Your task to perform on an android device: install app "Google Docs" Image 0: 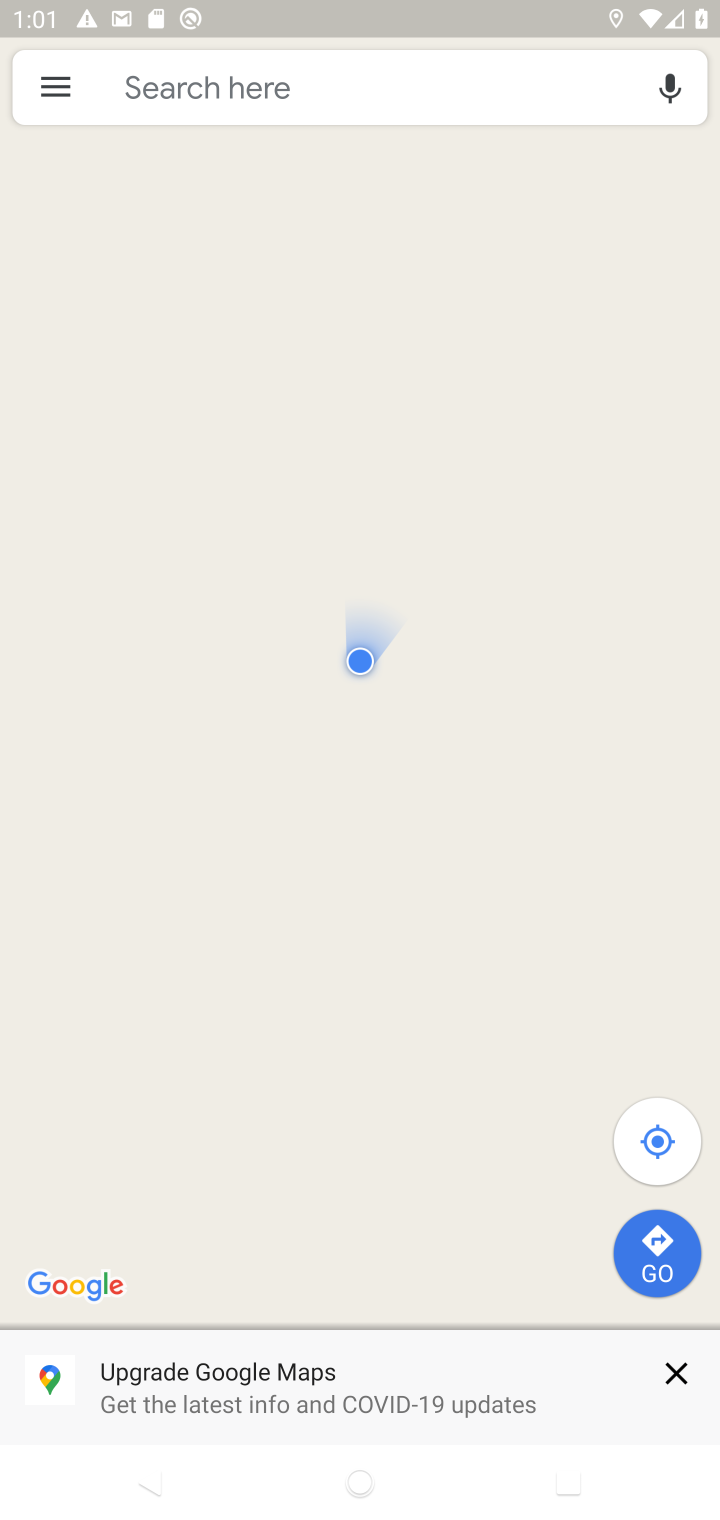
Step 0: press home button
Your task to perform on an android device: install app "Google Docs" Image 1: 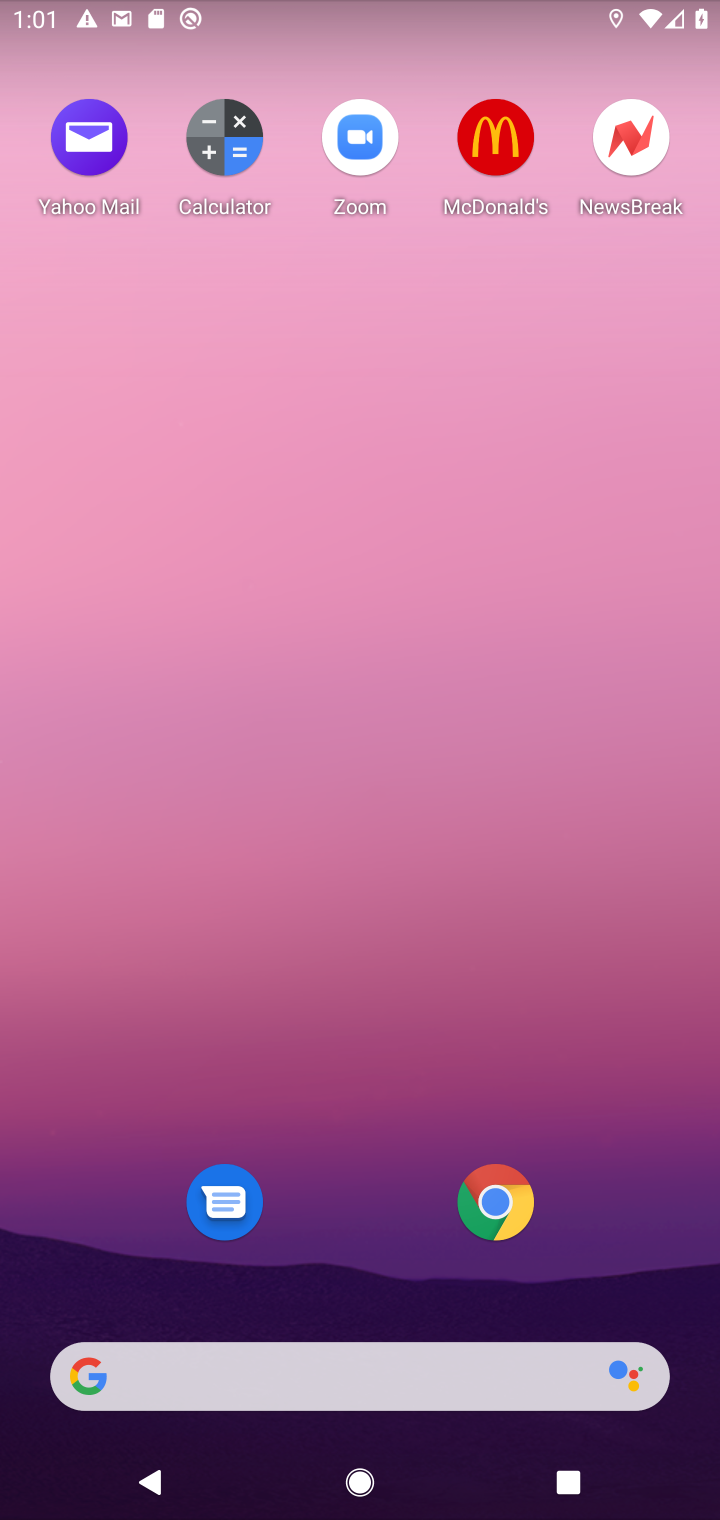
Step 1: drag from (360, 1069) to (529, 0)
Your task to perform on an android device: install app "Google Docs" Image 2: 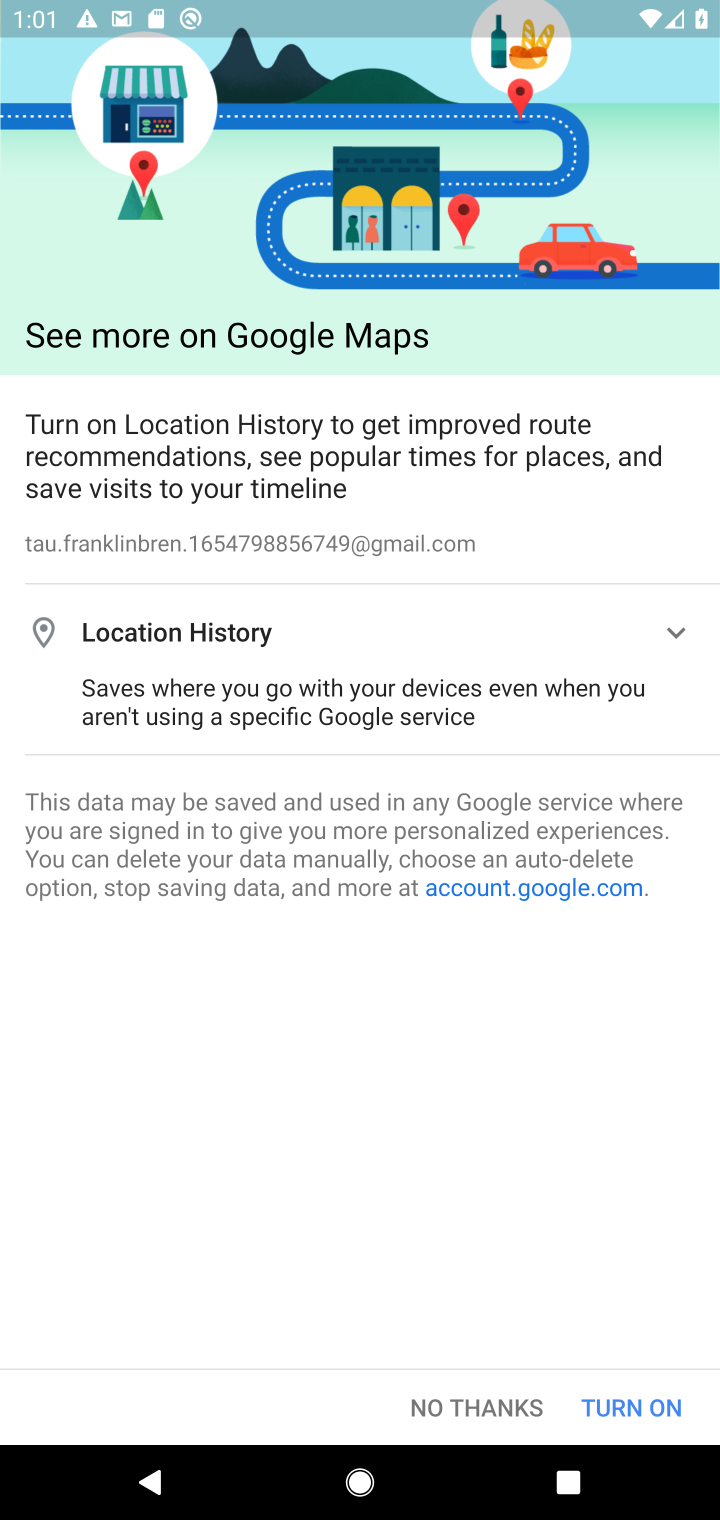
Step 2: press home button
Your task to perform on an android device: install app "Google Docs" Image 3: 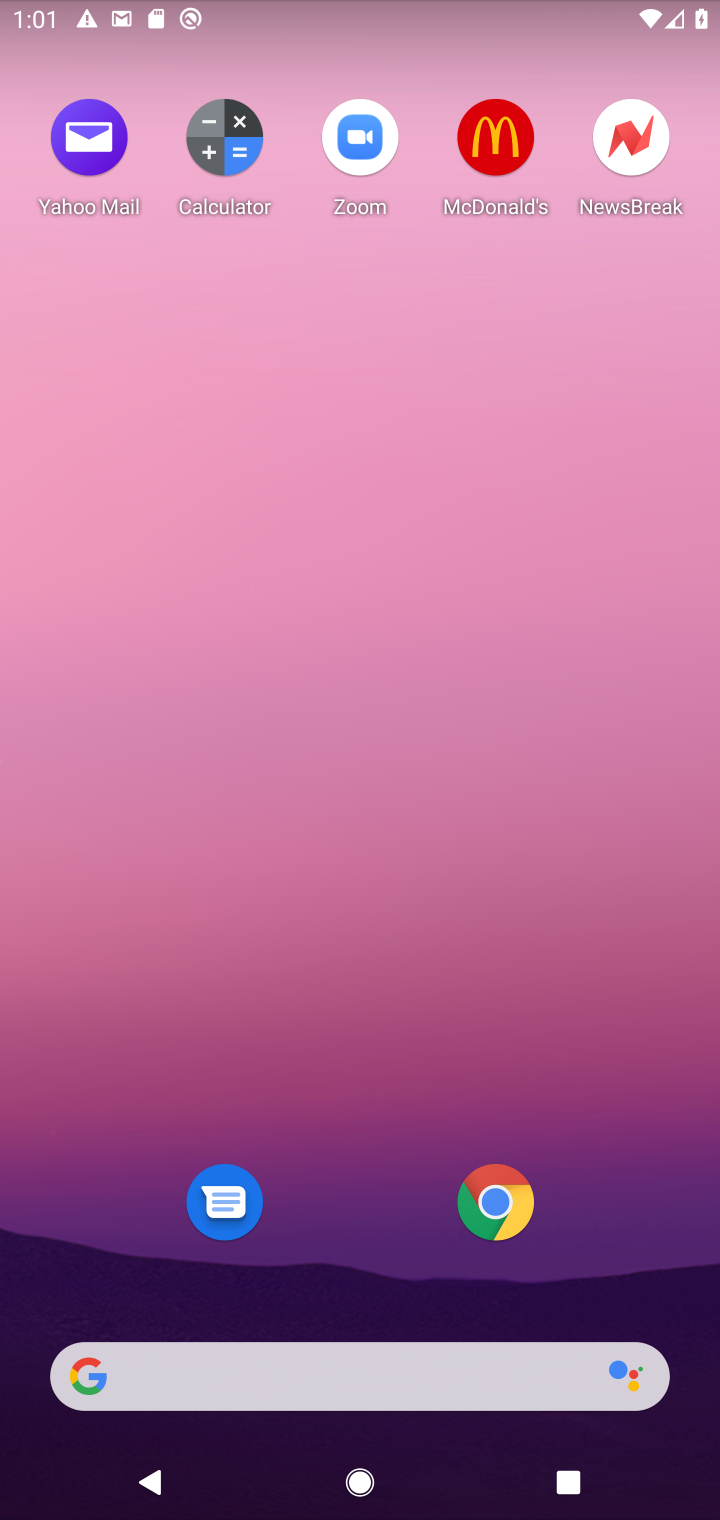
Step 3: drag from (333, 1240) to (323, 81)
Your task to perform on an android device: install app "Google Docs" Image 4: 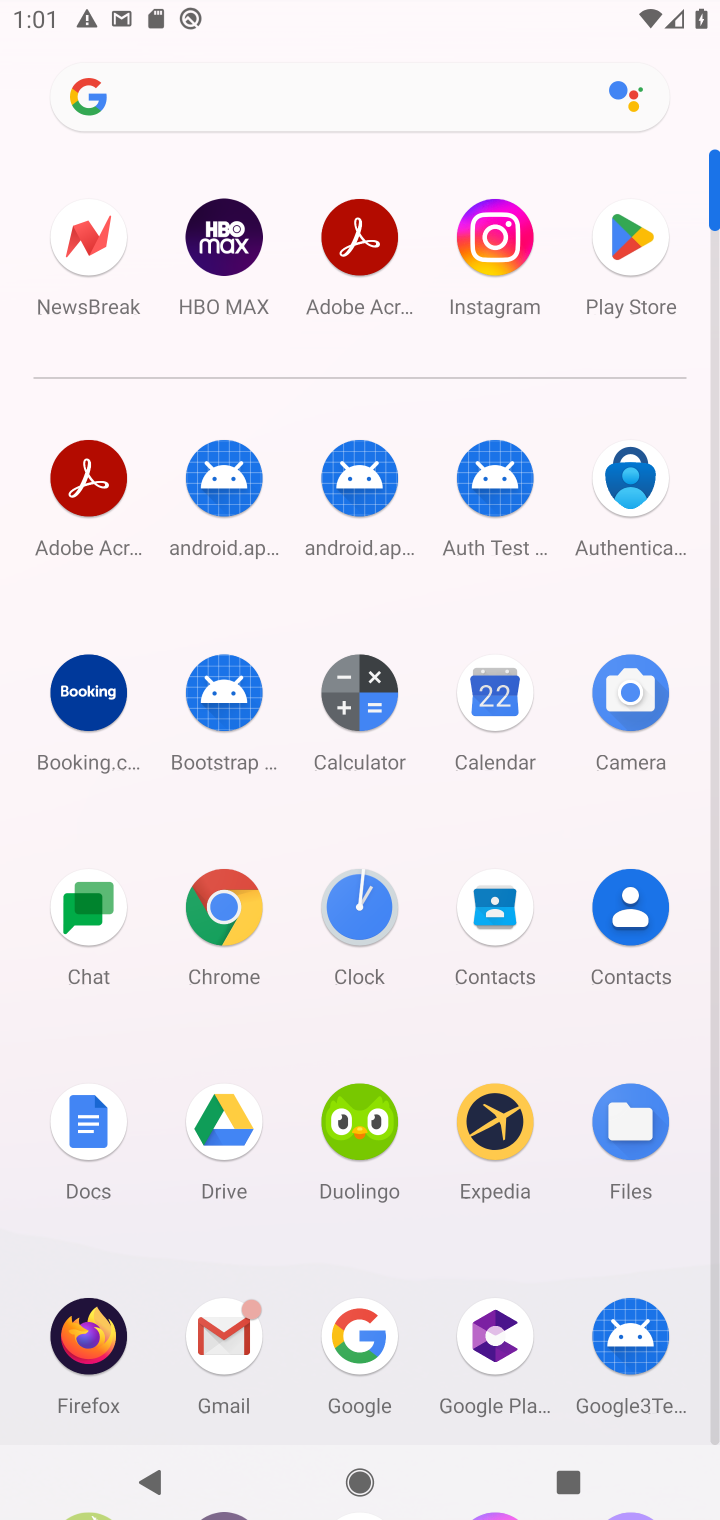
Step 4: click (617, 247)
Your task to perform on an android device: install app "Google Docs" Image 5: 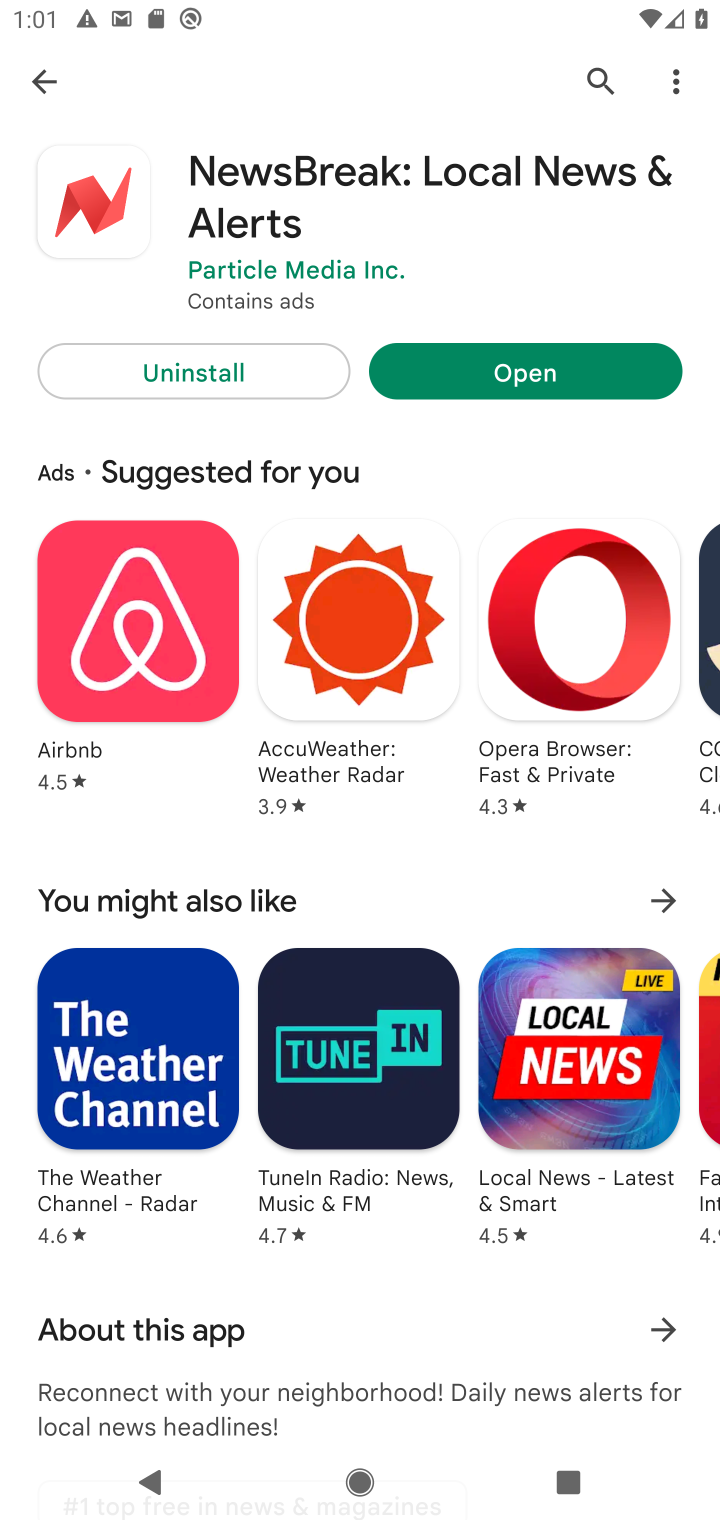
Step 5: click (599, 71)
Your task to perform on an android device: install app "Google Docs" Image 6: 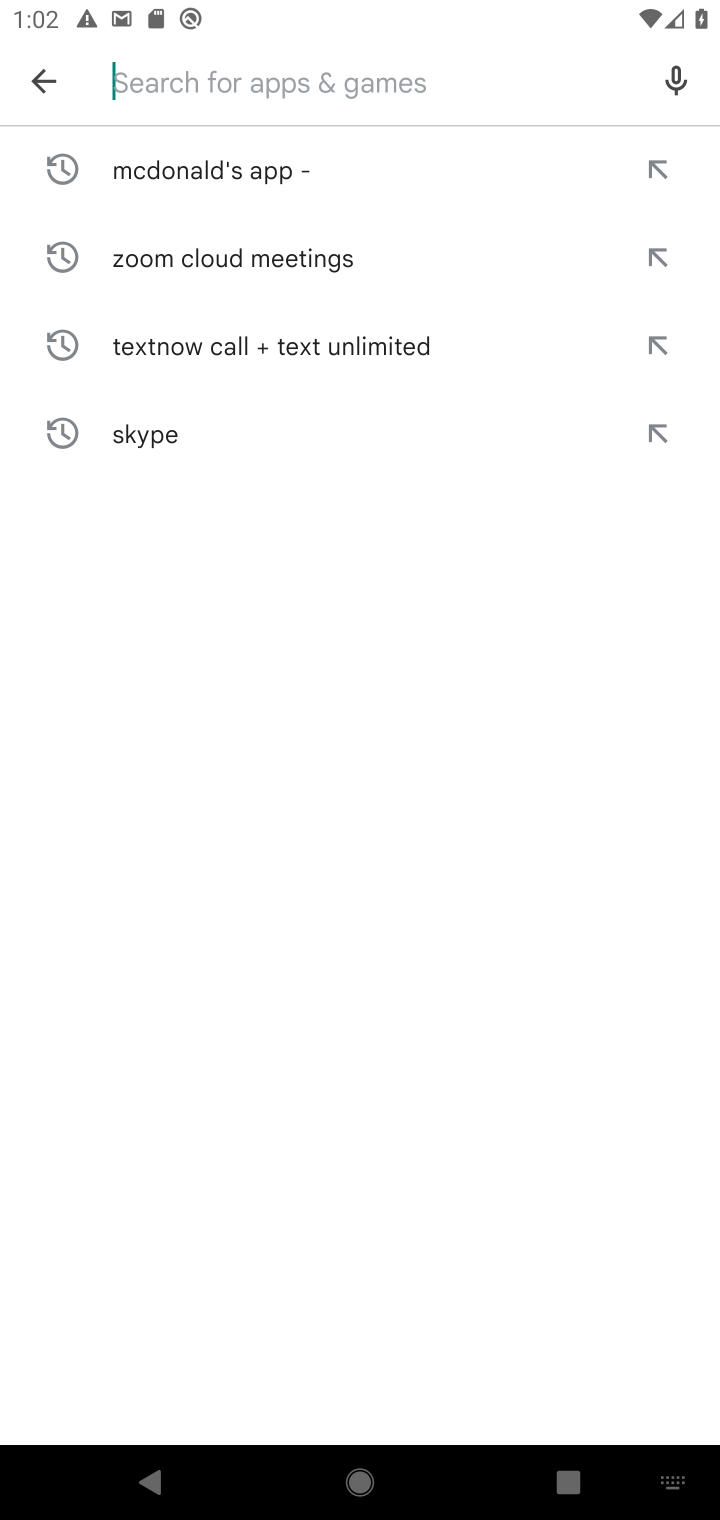
Step 6: type "Google Docs"
Your task to perform on an android device: install app "Google Docs" Image 7: 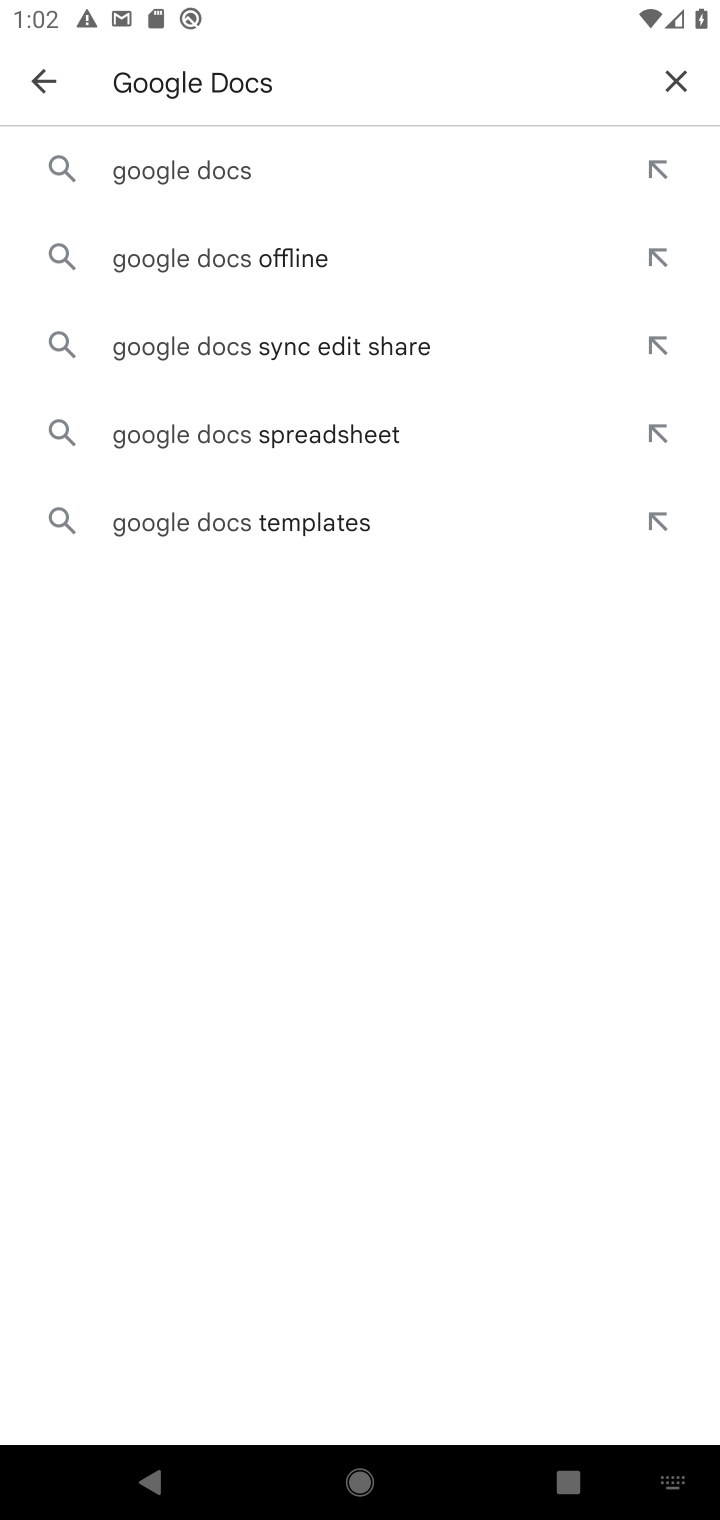
Step 7: click (165, 176)
Your task to perform on an android device: install app "Google Docs" Image 8: 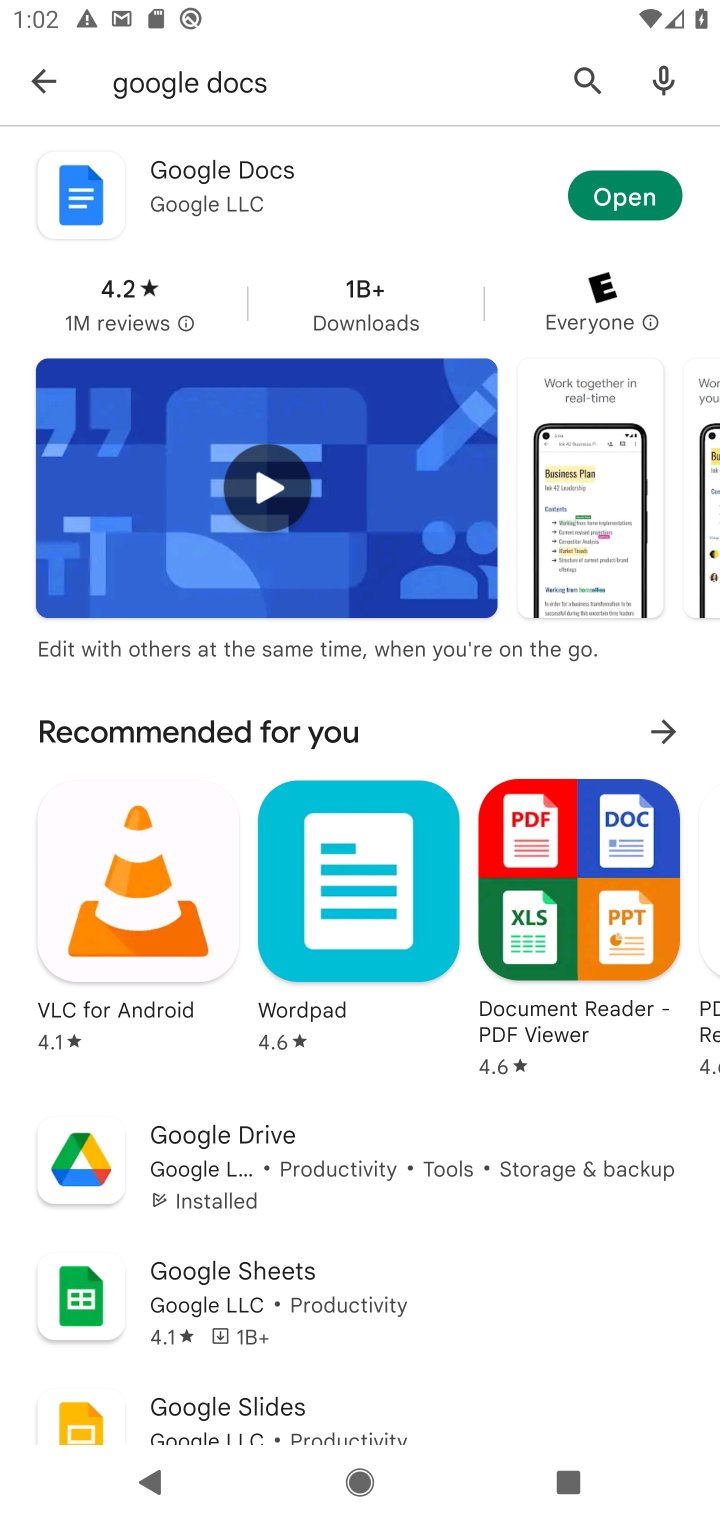
Step 8: task complete